Your task to perform on an android device: Search for the best rated Bluetooth earbuds on Ali express Image 0: 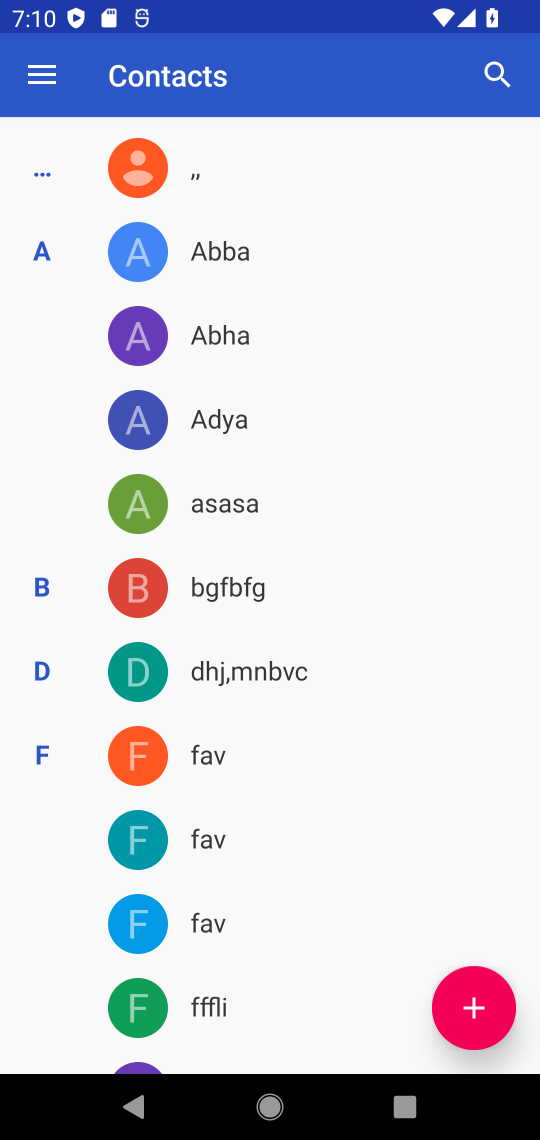
Step 0: press home button
Your task to perform on an android device: Search for the best rated Bluetooth earbuds on Ali express Image 1: 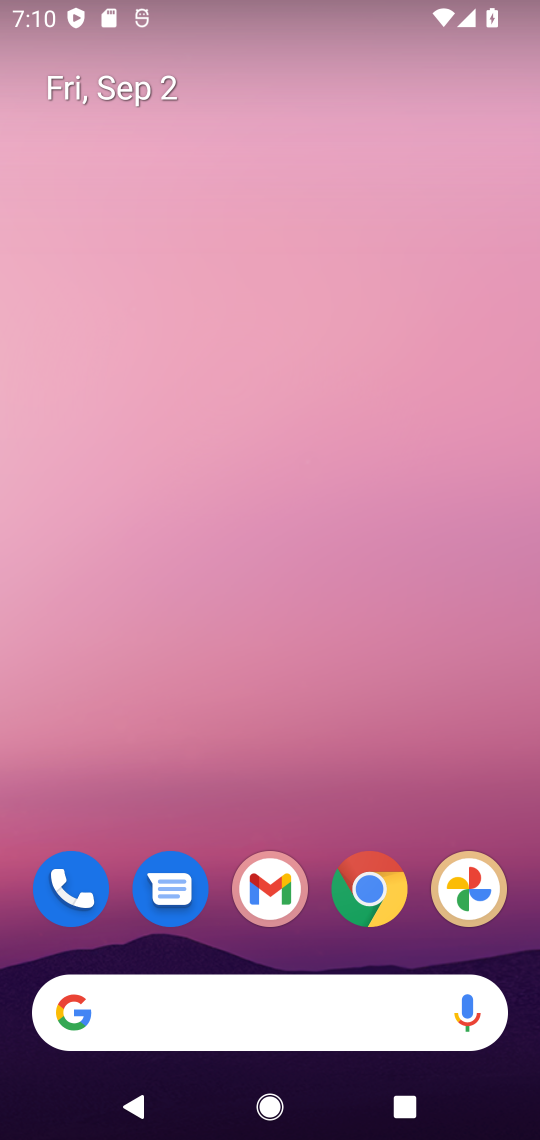
Step 1: click (273, 986)
Your task to perform on an android device: Search for the best rated Bluetooth earbuds on Ali express Image 2: 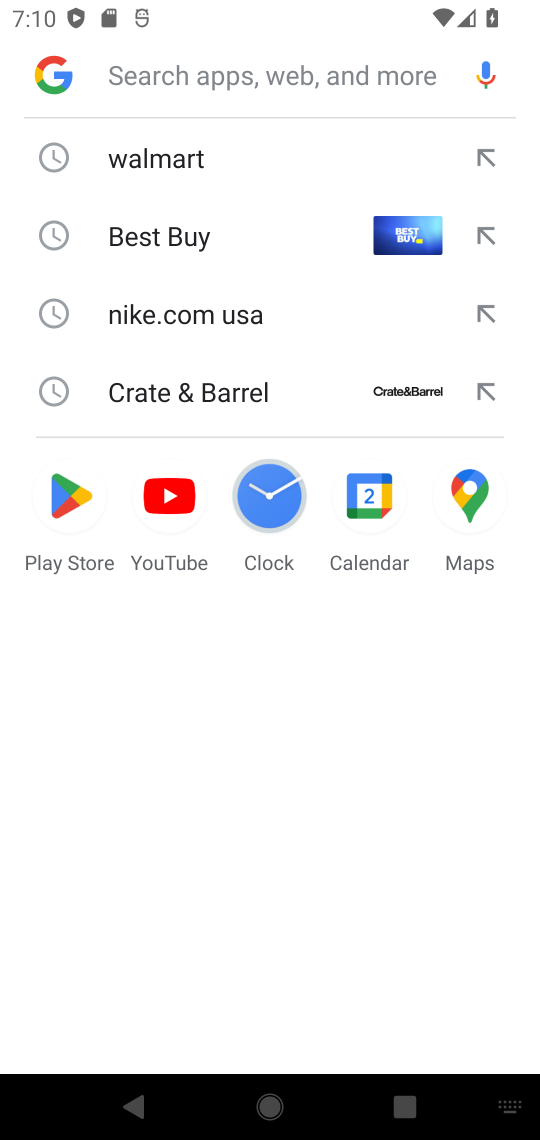
Step 2: type "Ali express"
Your task to perform on an android device: Search for the best rated Bluetooth earbuds on Ali express Image 3: 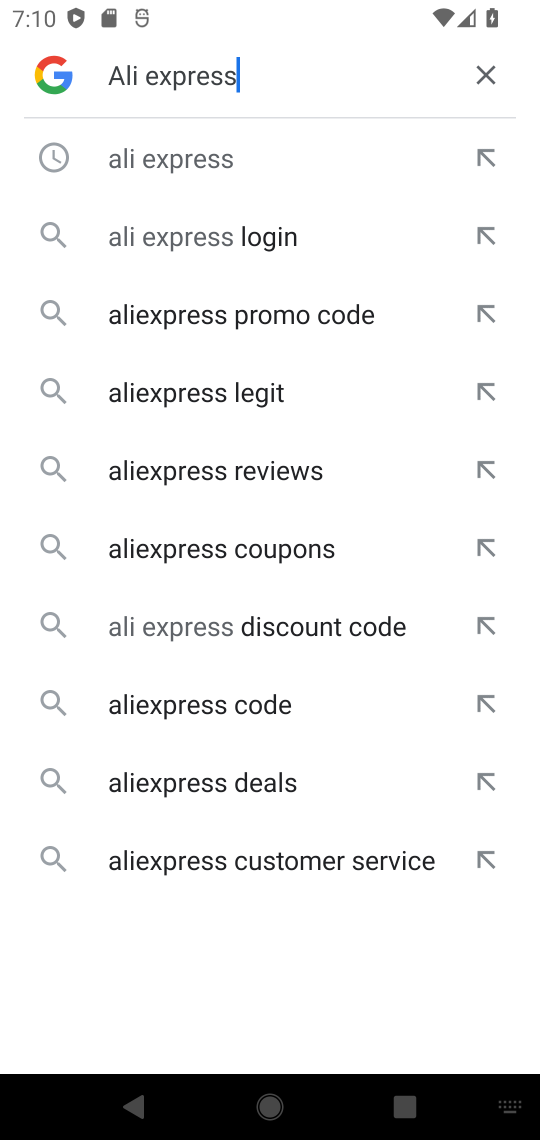
Step 3: click (180, 169)
Your task to perform on an android device: Search for the best rated Bluetooth earbuds on Ali express Image 4: 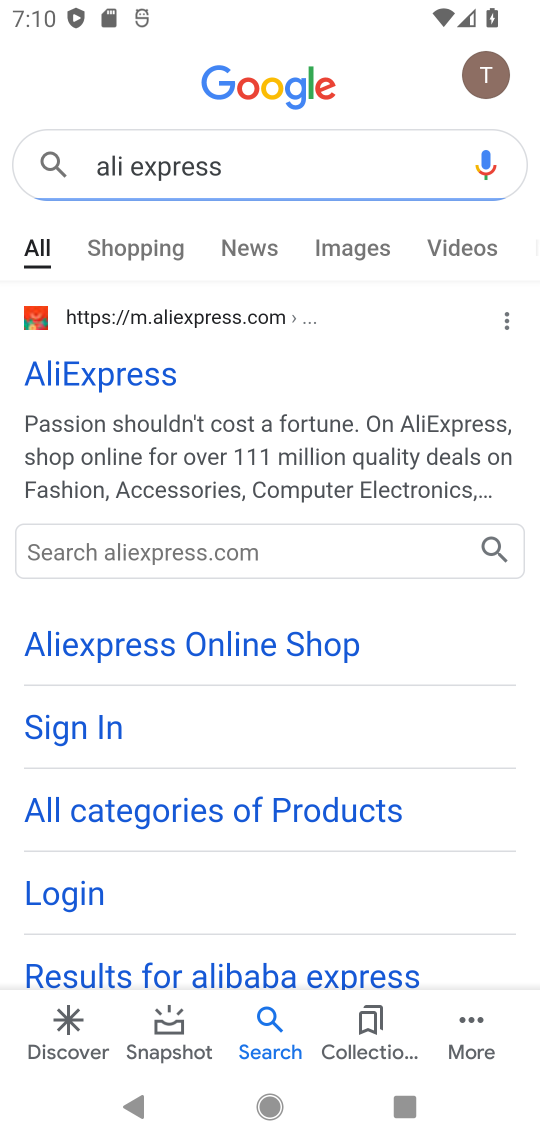
Step 4: click (107, 365)
Your task to perform on an android device: Search for the best rated Bluetooth earbuds on Ali express Image 5: 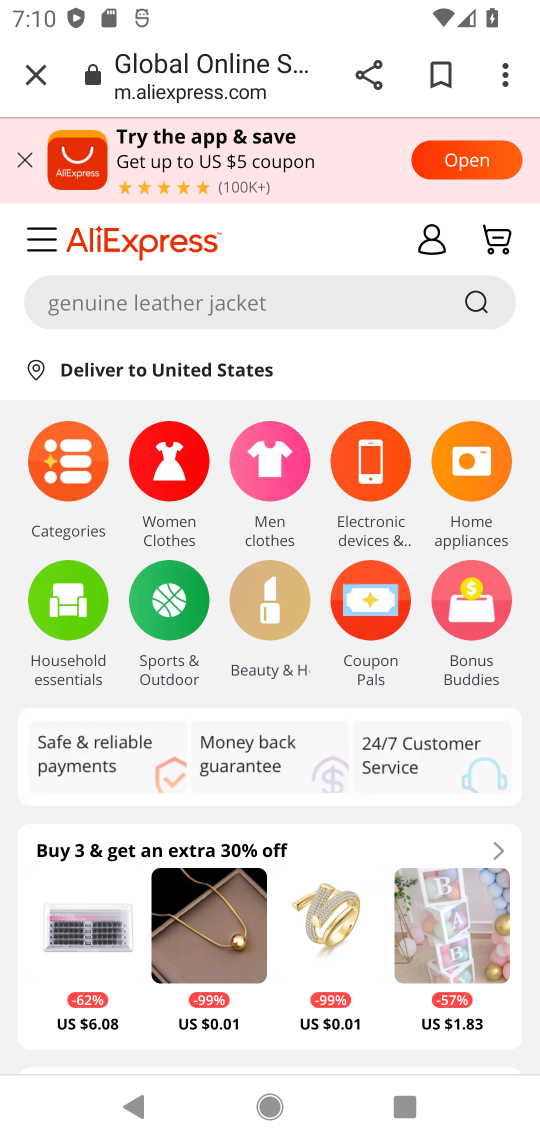
Step 5: click (181, 283)
Your task to perform on an android device: Search for the best rated Bluetooth earbuds on Ali express Image 6: 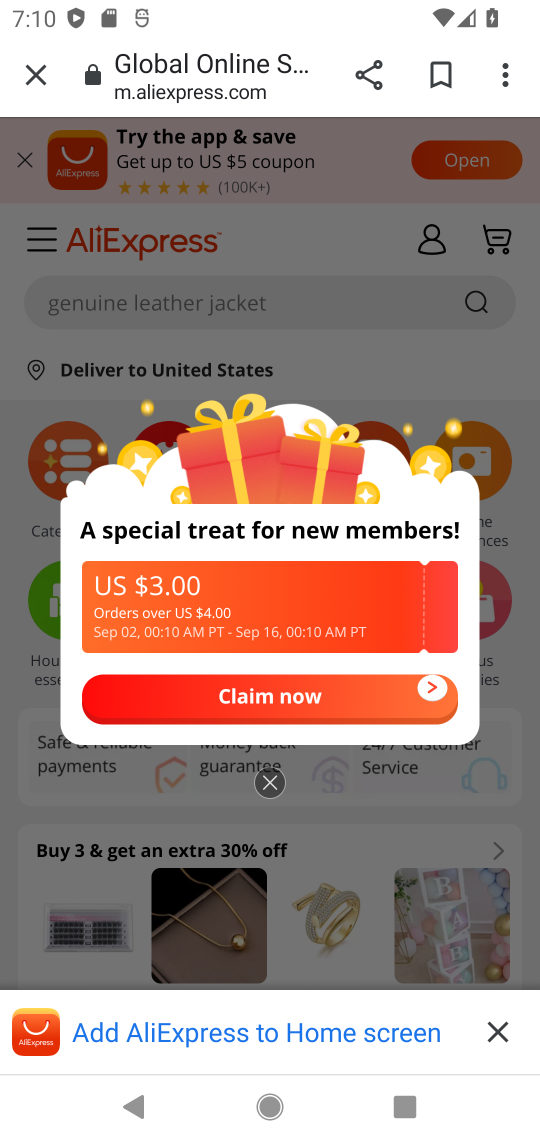
Step 6: click (265, 792)
Your task to perform on an android device: Search for the best rated Bluetooth earbuds on Ali express Image 7: 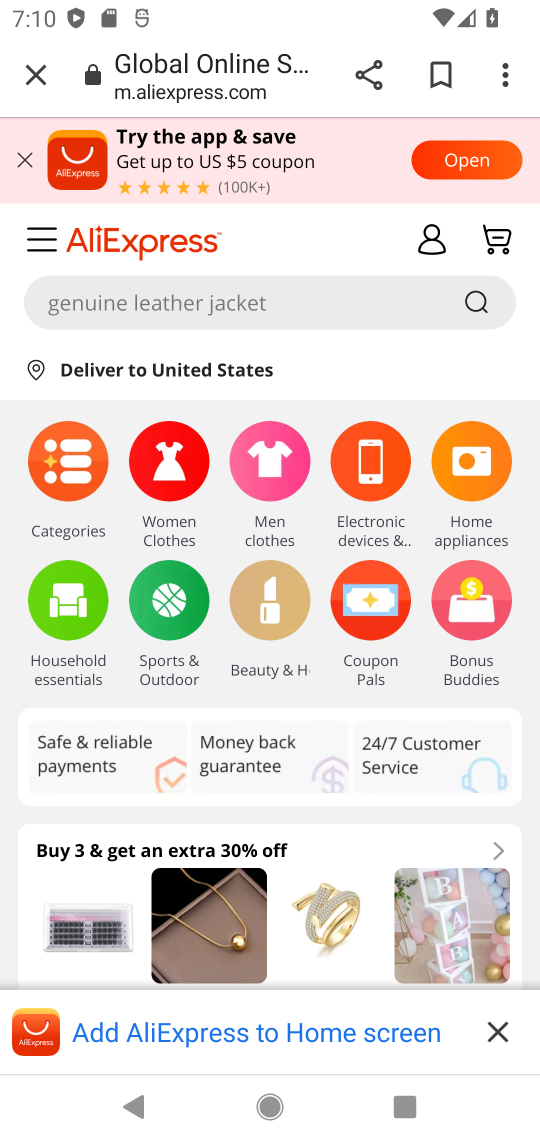
Step 7: click (205, 307)
Your task to perform on an android device: Search for the best rated Bluetooth earbuds on Ali express Image 8: 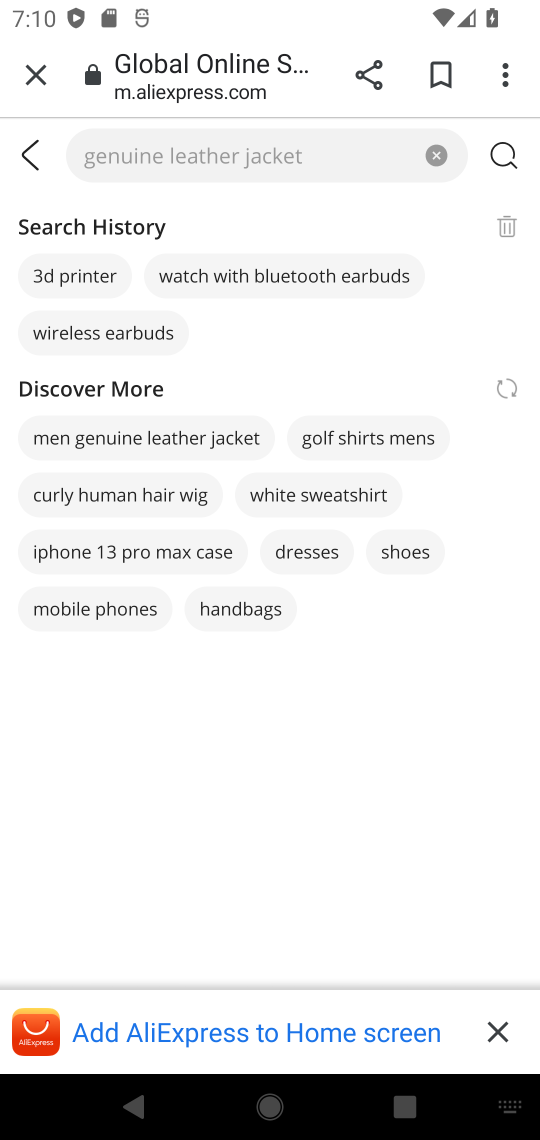
Step 8: type "Bluetooth earbuds"
Your task to perform on an android device: Search for the best rated Bluetooth earbuds on Ali express Image 9: 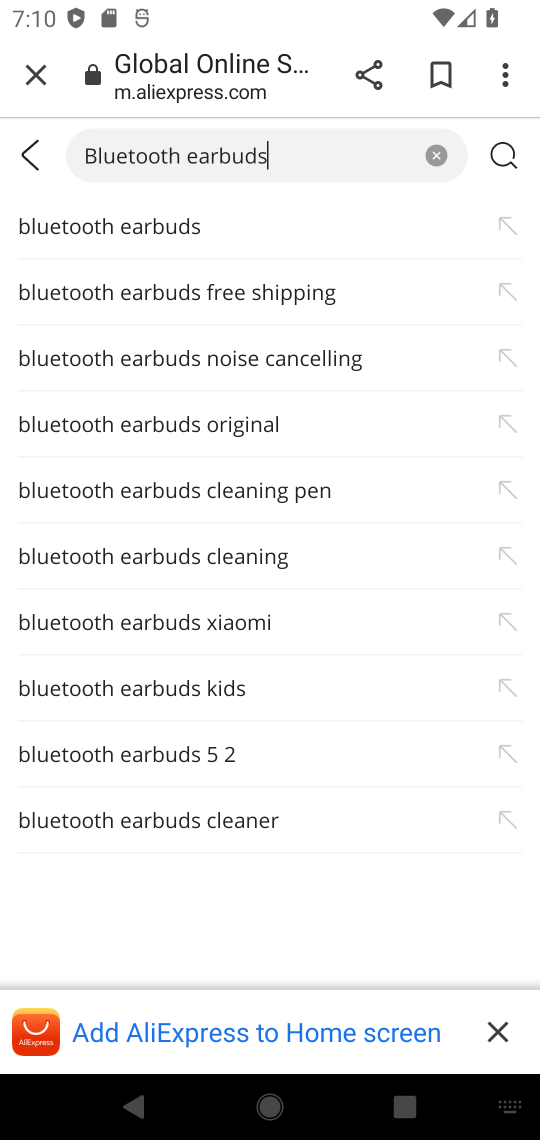
Step 9: click (140, 226)
Your task to perform on an android device: Search for the best rated Bluetooth earbuds on Ali express Image 10: 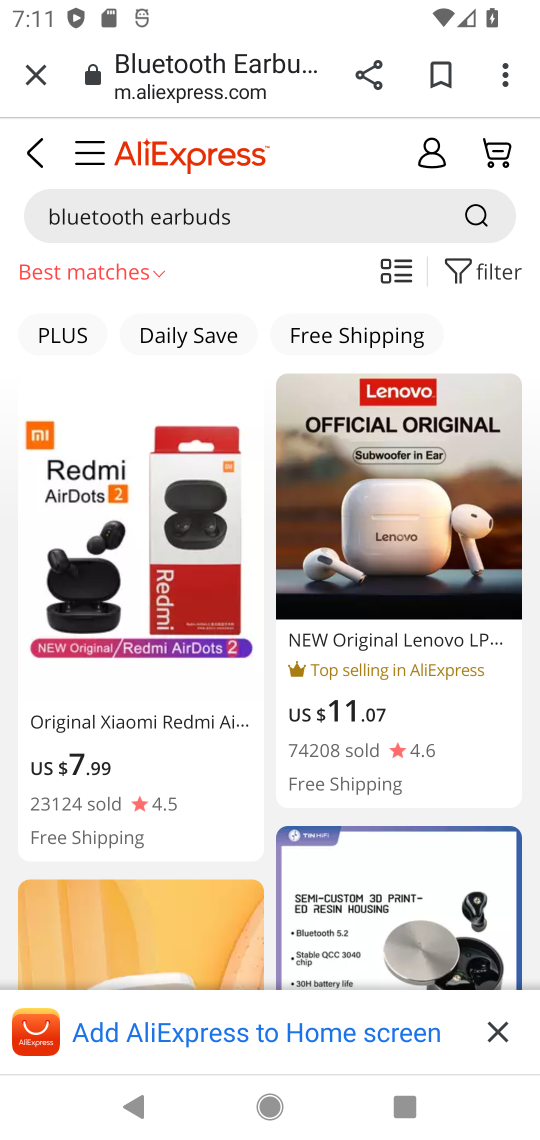
Step 10: click (481, 215)
Your task to perform on an android device: Search for the best rated Bluetooth earbuds on Ali express Image 11: 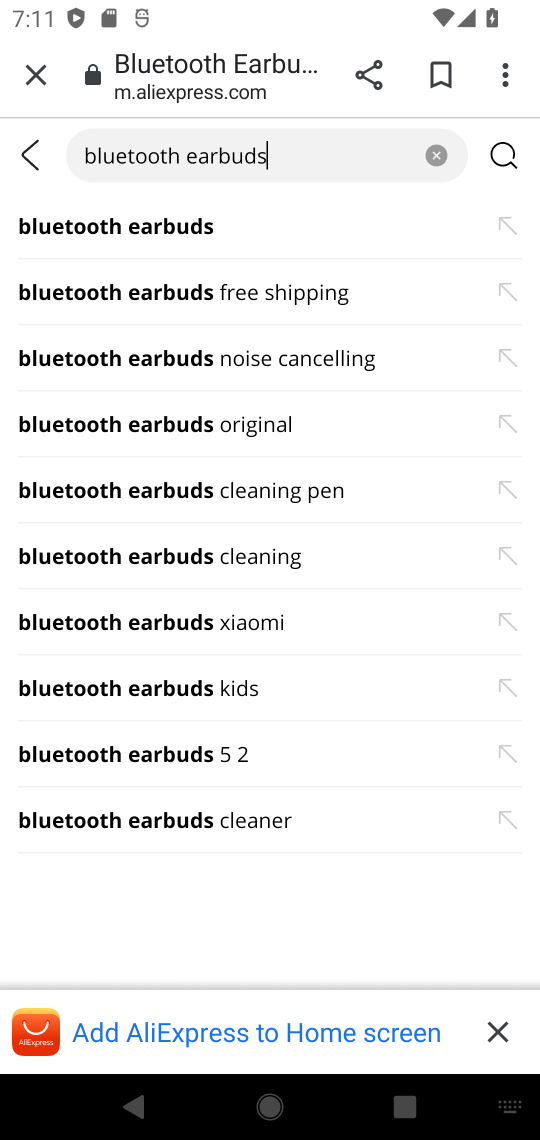
Step 11: click (295, 224)
Your task to perform on an android device: Search for the best rated Bluetooth earbuds on Ali express Image 12: 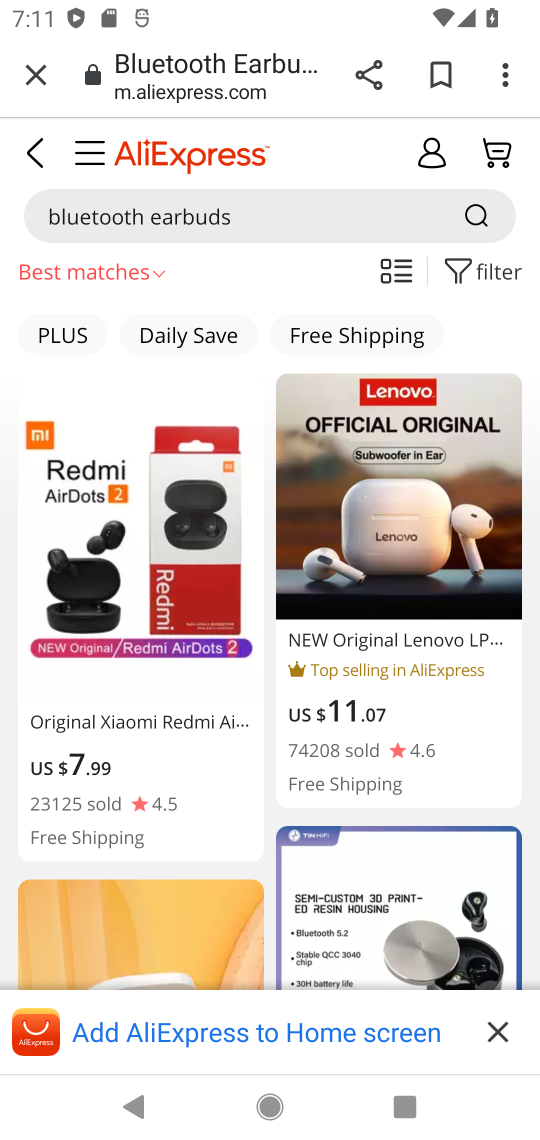
Step 12: task complete